Your task to perform on an android device: Go to location settings Image 0: 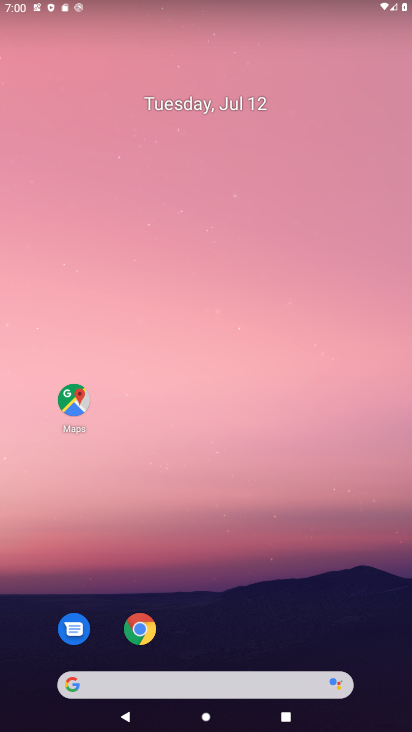
Step 0: drag from (248, 702) to (198, 184)
Your task to perform on an android device: Go to location settings Image 1: 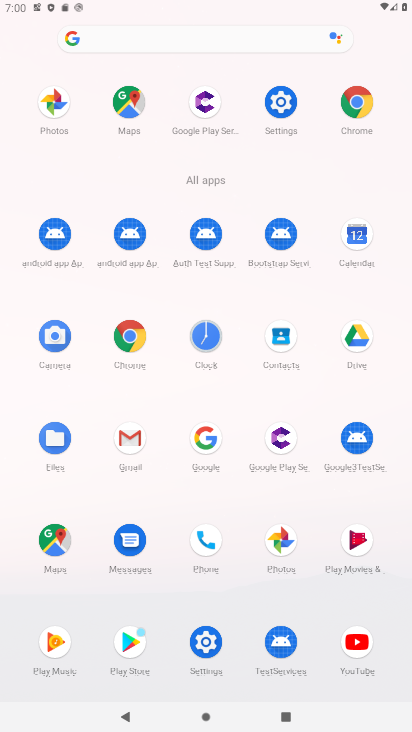
Step 1: click (213, 636)
Your task to perform on an android device: Go to location settings Image 2: 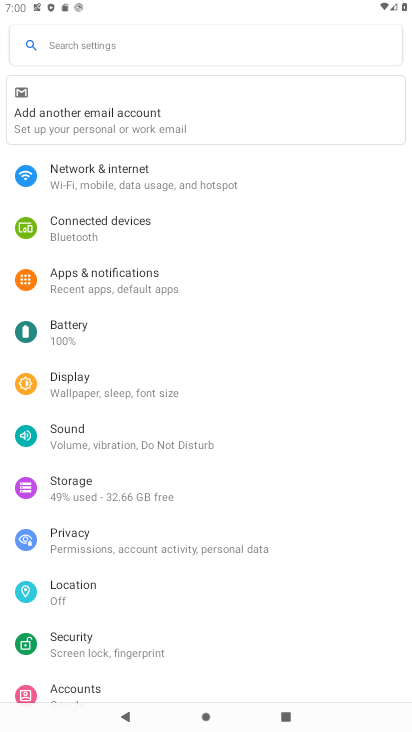
Step 2: click (106, 592)
Your task to perform on an android device: Go to location settings Image 3: 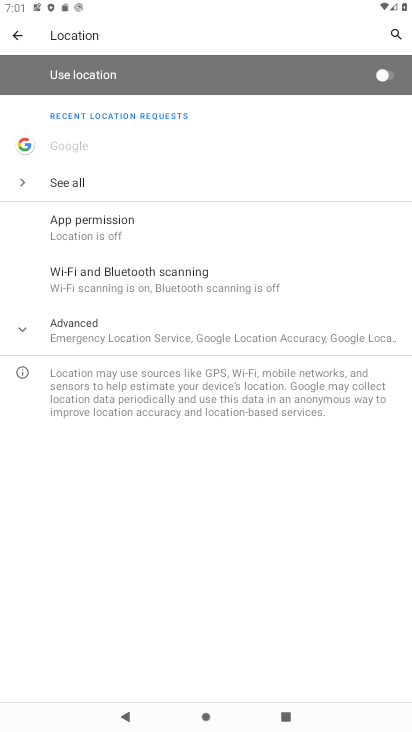
Step 3: click (379, 75)
Your task to perform on an android device: Go to location settings Image 4: 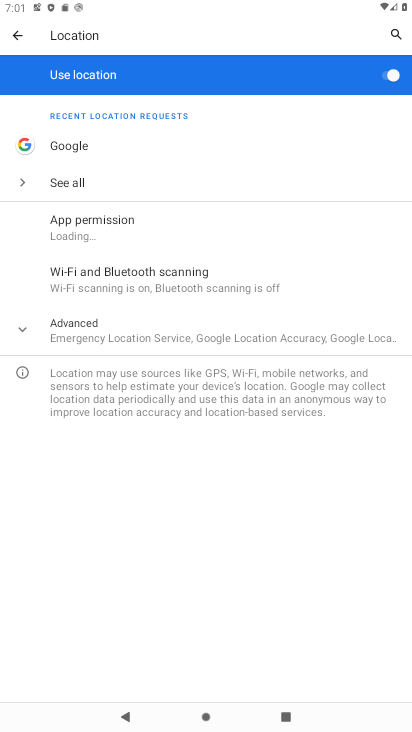
Step 4: task complete